Your task to perform on an android device: allow notifications from all sites in the chrome app Image 0: 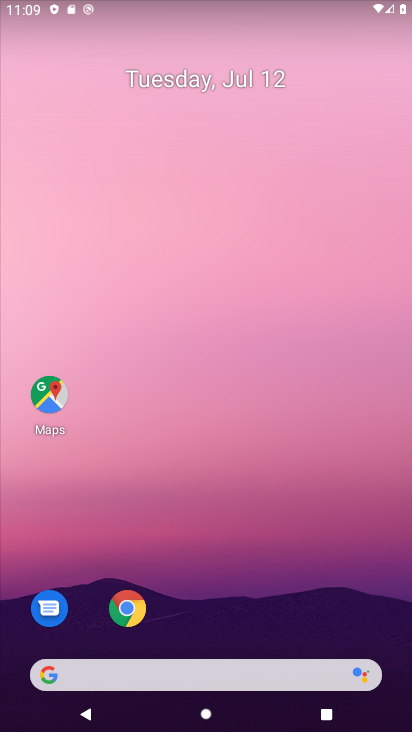
Step 0: click (129, 614)
Your task to perform on an android device: allow notifications from all sites in the chrome app Image 1: 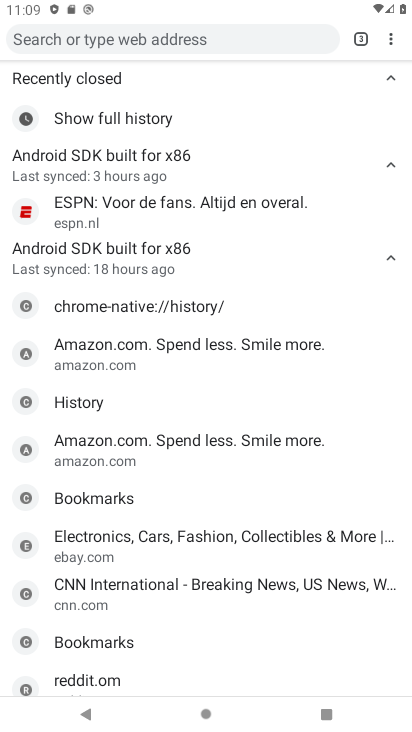
Step 1: click (391, 42)
Your task to perform on an android device: allow notifications from all sites in the chrome app Image 2: 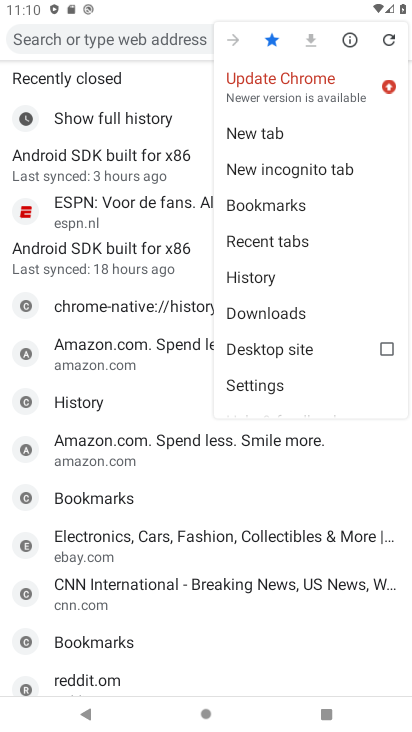
Step 2: click (264, 386)
Your task to perform on an android device: allow notifications from all sites in the chrome app Image 3: 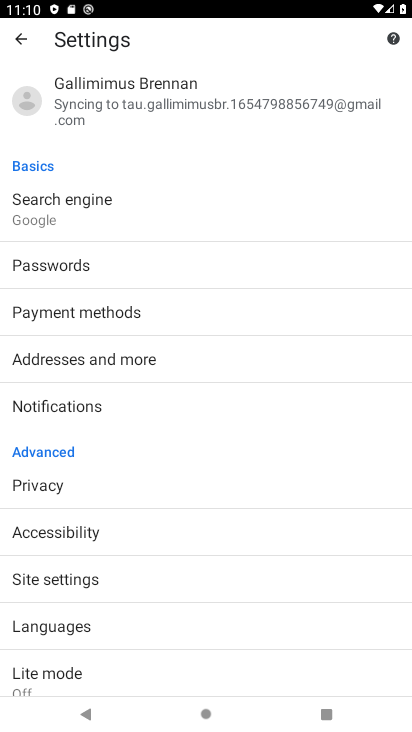
Step 3: click (68, 405)
Your task to perform on an android device: allow notifications from all sites in the chrome app Image 4: 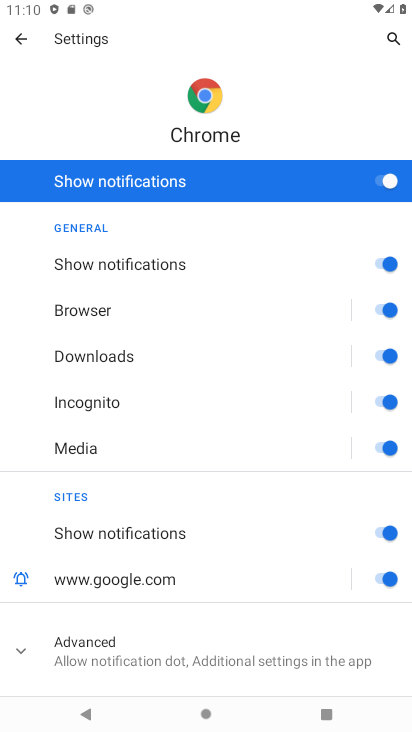
Step 4: task complete